Your task to perform on an android device: Clear the cart on costco.com. Search for jbl flip 4 on costco.com, select the first entry, and add it to the cart. Image 0: 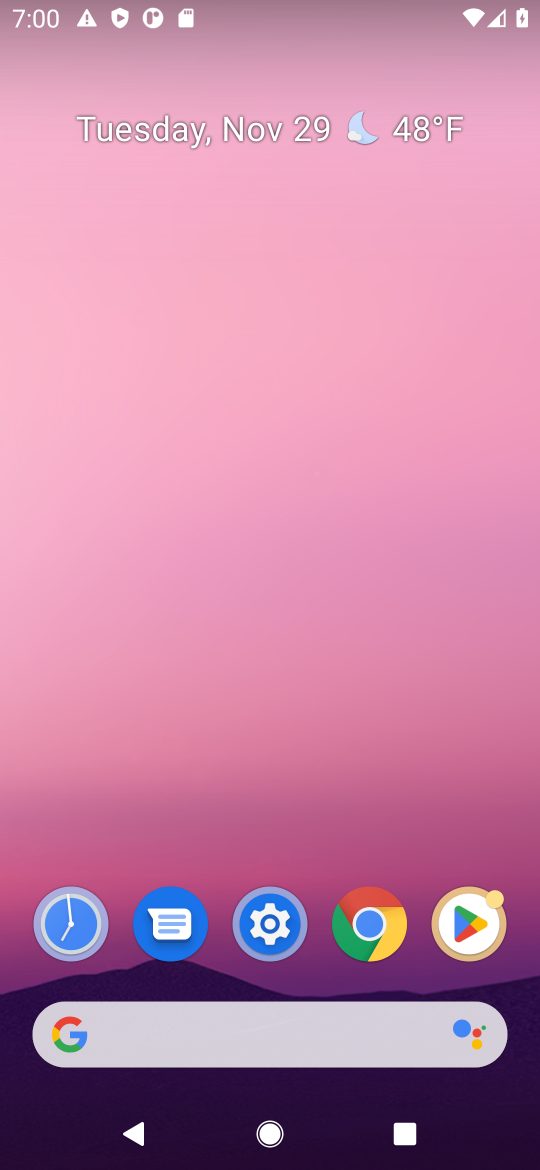
Step 0: click (267, 1029)
Your task to perform on an android device: Clear the cart on costco.com. Search for jbl flip 4 on costco.com, select the first entry, and add it to the cart. Image 1: 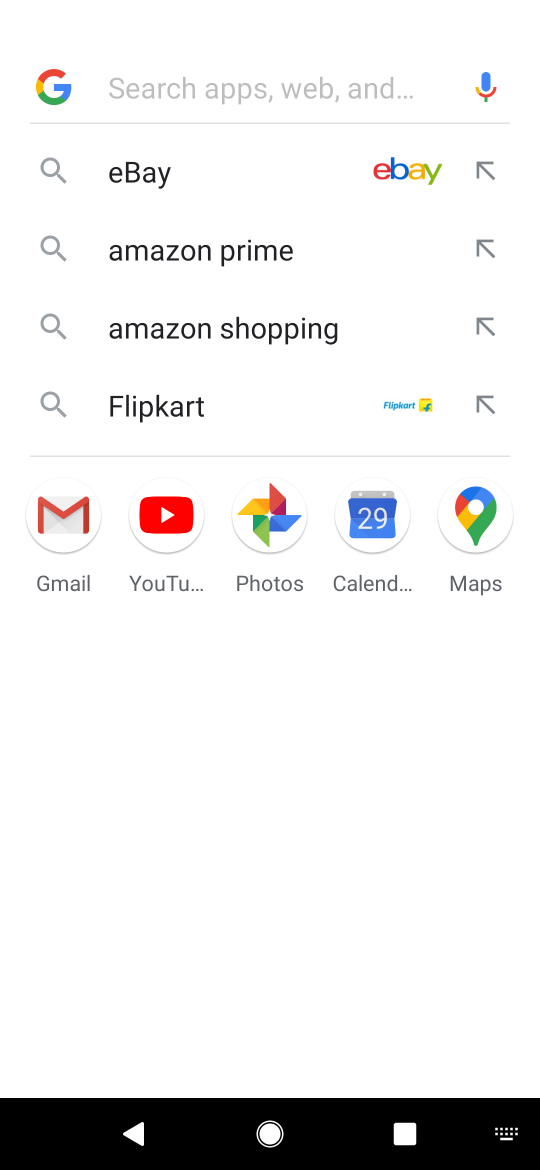
Step 1: type "costco.com"
Your task to perform on an android device: Clear the cart on costco.com. Search for jbl flip 4 on costco.com, select the first entry, and add it to the cart. Image 2: 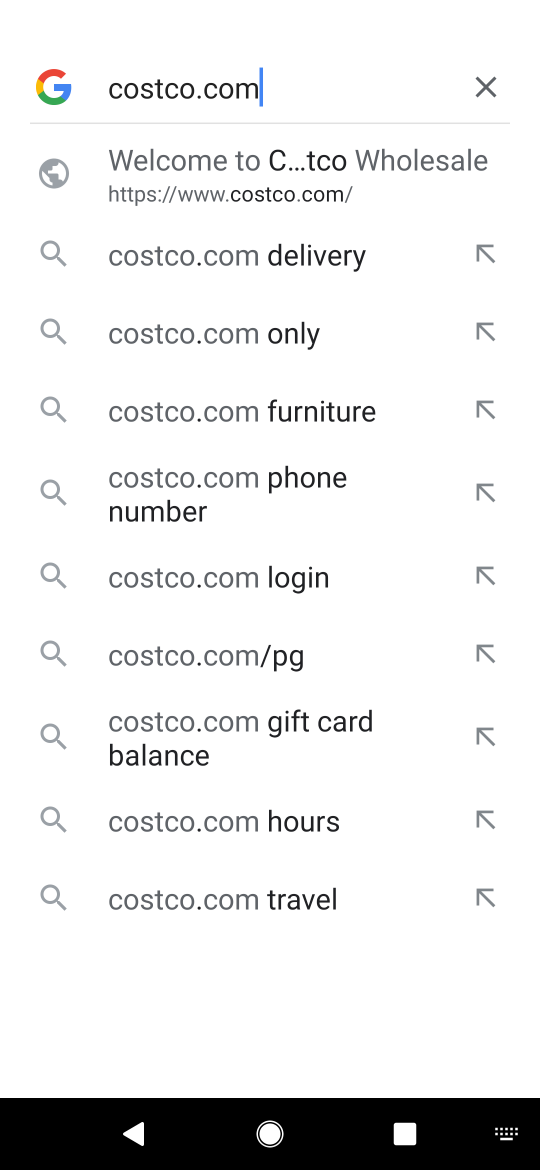
Step 2: click (280, 178)
Your task to perform on an android device: Clear the cart on costco.com. Search for jbl flip 4 on costco.com, select the first entry, and add it to the cart. Image 3: 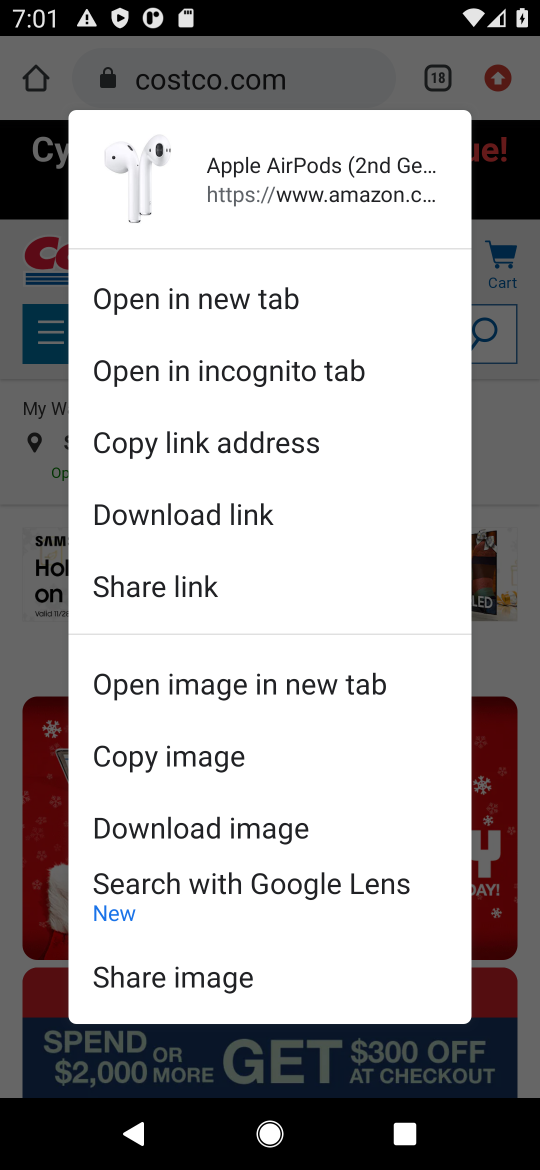
Step 3: click (513, 652)
Your task to perform on an android device: Clear the cart on costco.com. Search for jbl flip 4 on costco.com, select the first entry, and add it to the cart. Image 4: 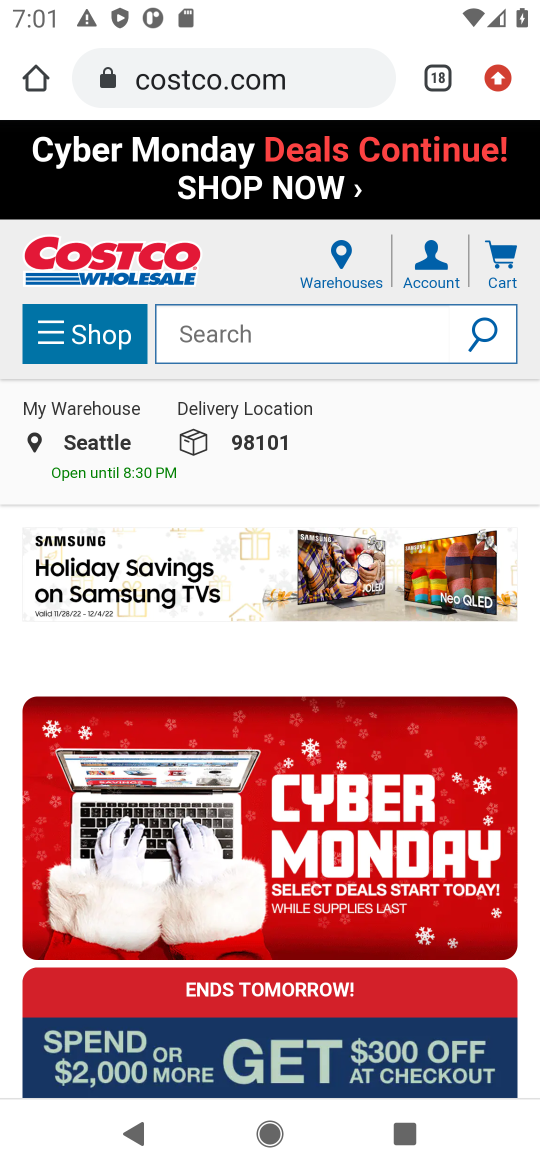
Step 4: click (214, 329)
Your task to perform on an android device: Clear the cart on costco.com. Search for jbl flip 4 on costco.com, select the first entry, and add it to the cart. Image 5: 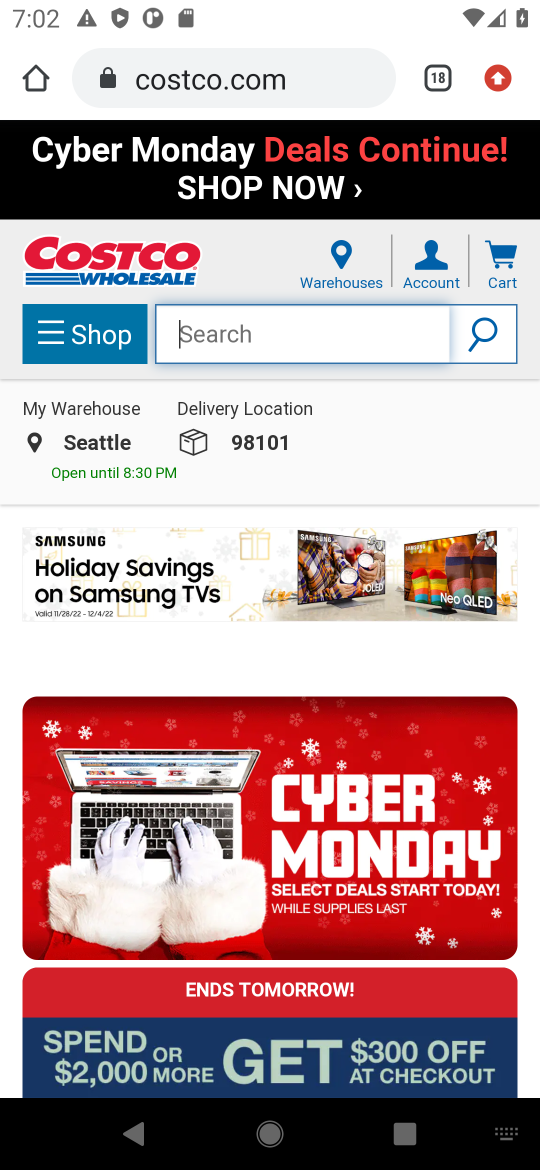
Step 5: type "jbl flip 4"
Your task to perform on an android device: Clear the cart on costco.com. Search for jbl flip 4 on costco.com, select the first entry, and add it to the cart. Image 6: 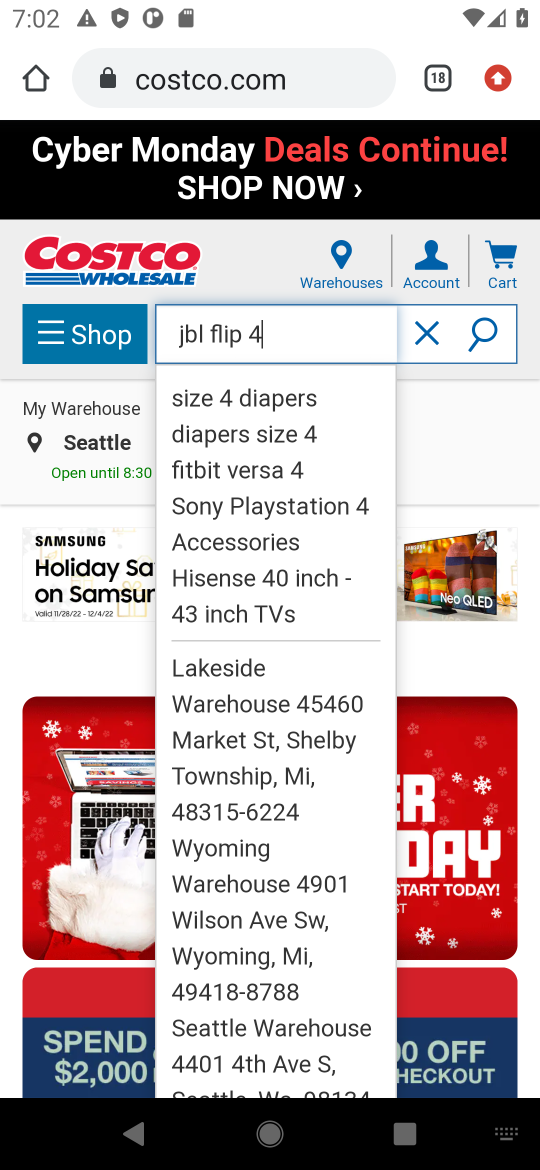
Step 6: click (482, 324)
Your task to perform on an android device: Clear the cart on costco.com. Search for jbl flip 4 on costco.com, select the first entry, and add it to the cart. Image 7: 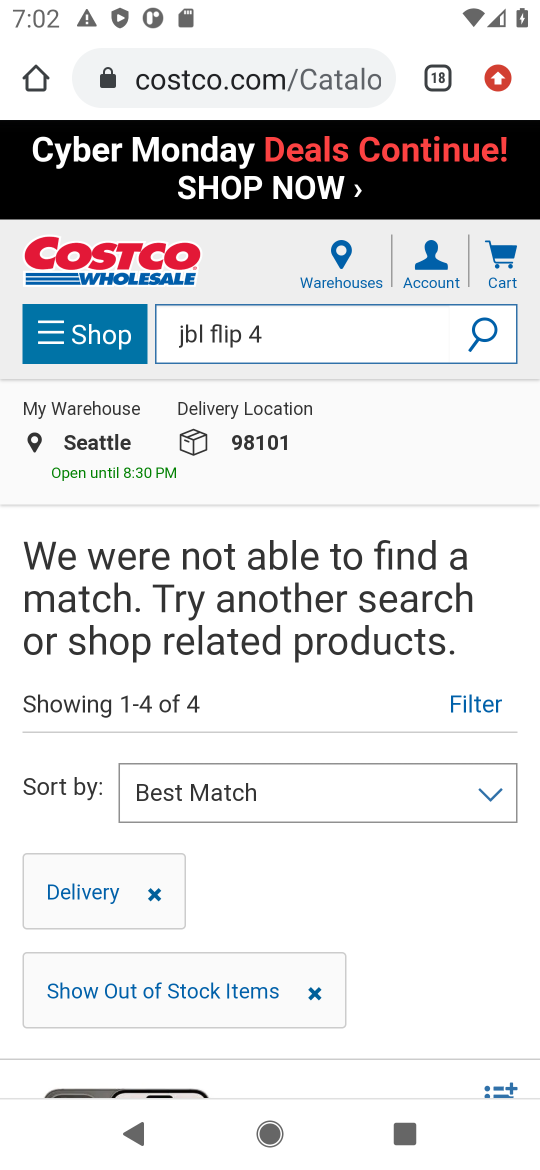
Step 7: drag from (443, 959) to (335, 308)
Your task to perform on an android device: Clear the cart on costco.com. Search for jbl flip 4 on costco.com, select the first entry, and add it to the cart. Image 8: 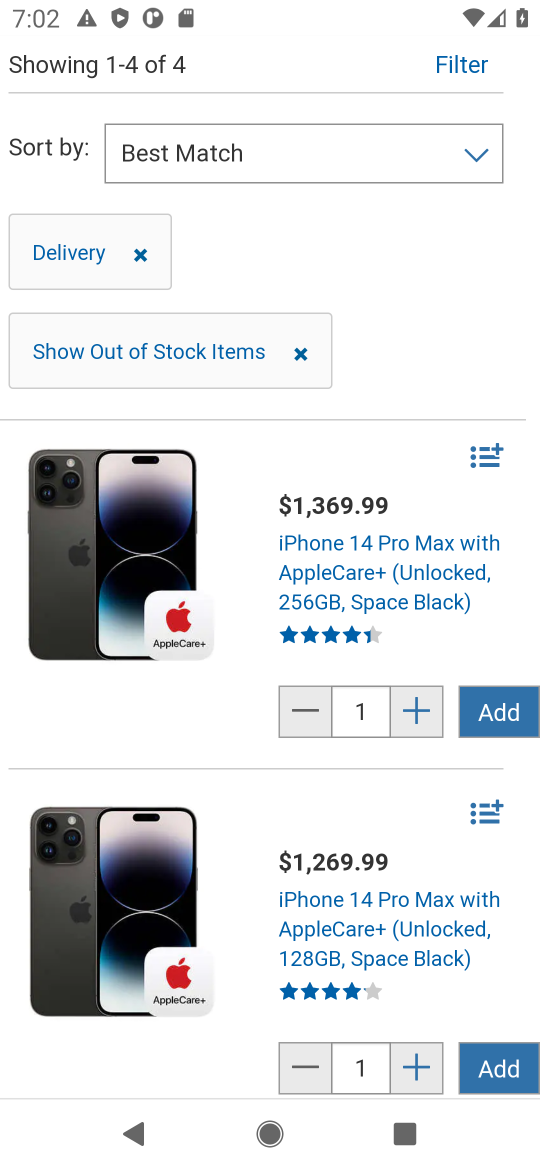
Step 8: click (500, 1078)
Your task to perform on an android device: Clear the cart on costco.com. Search for jbl flip 4 on costco.com, select the first entry, and add it to the cart. Image 9: 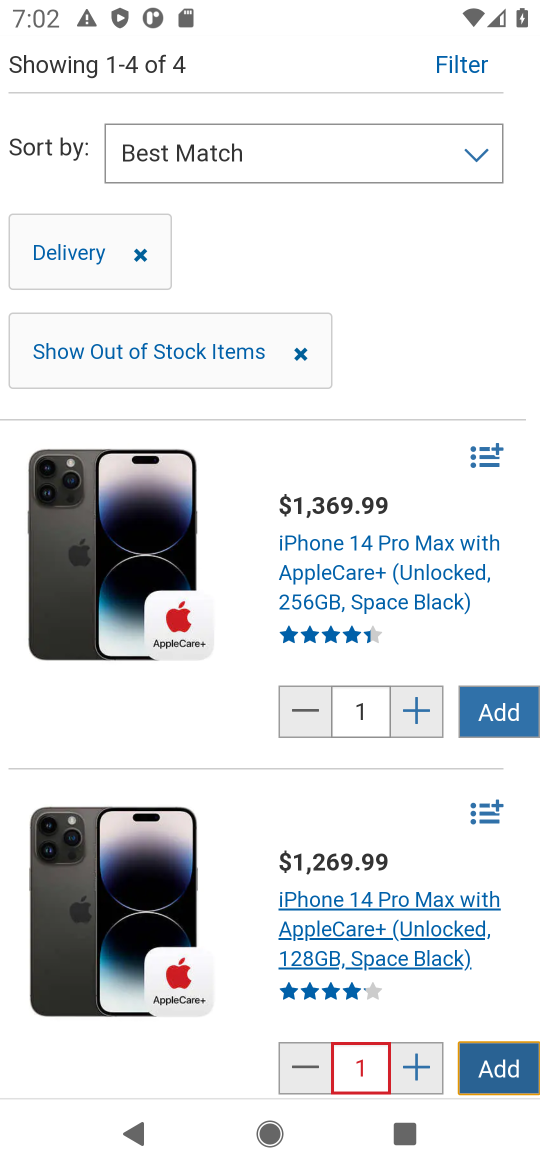
Step 9: click (483, 717)
Your task to perform on an android device: Clear the cart on costco.com. Search for jbl flip 4 on costco.com, select the first entry, and add it to the cart. Image 10: 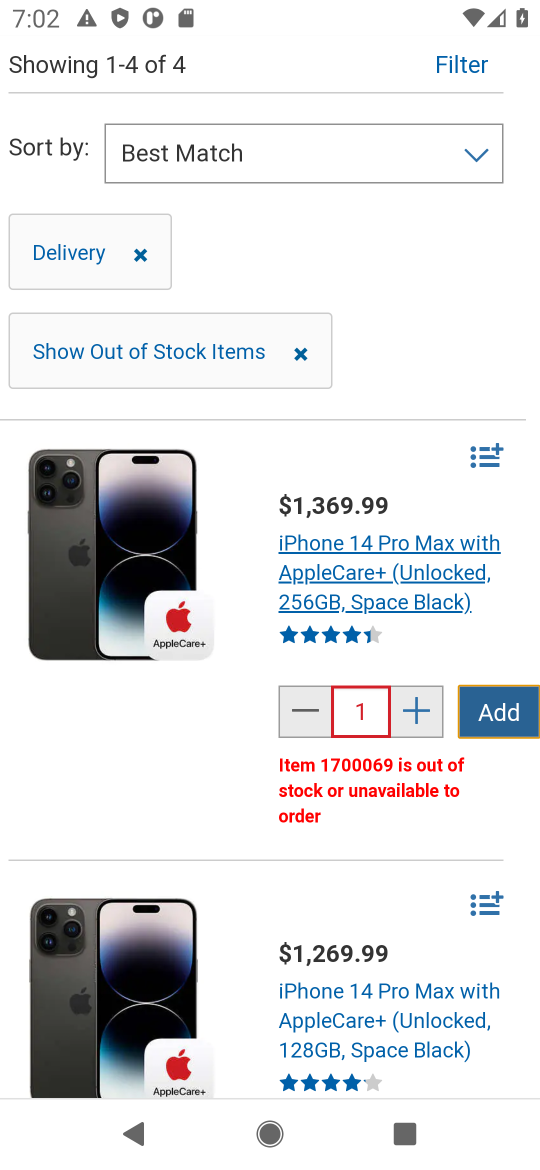
Step 10: task complete